Your task to perform on an android device: check google app version Image 0: 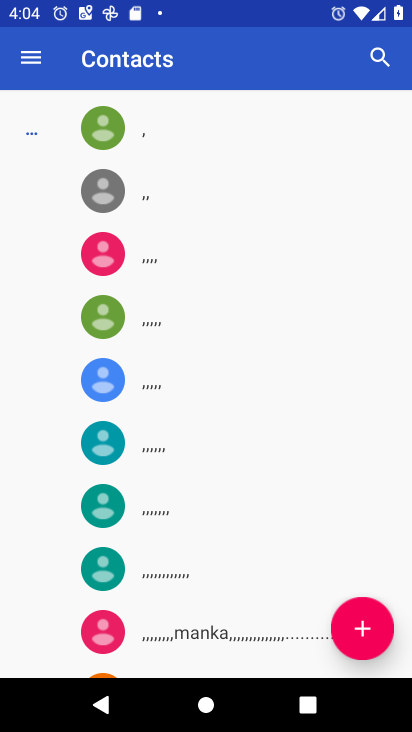
Step 0: press home button
Your task to perform on an android device: check google app version Image 1: 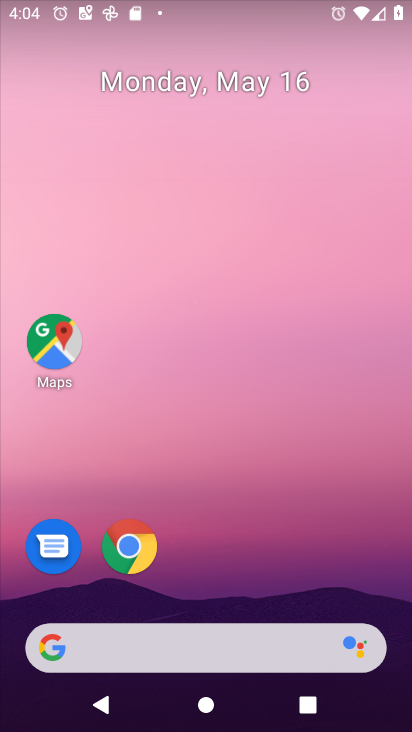
Step 1: drag from (353, 591) to (360, 128)
Your task to perform on an android device: check google app version Image 2: 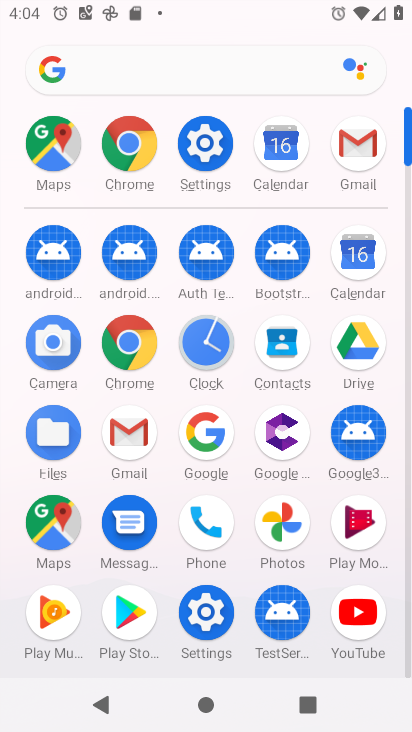
Step 2: click (214, 448)
Your task to perform on an android device: check google app version Image 3: 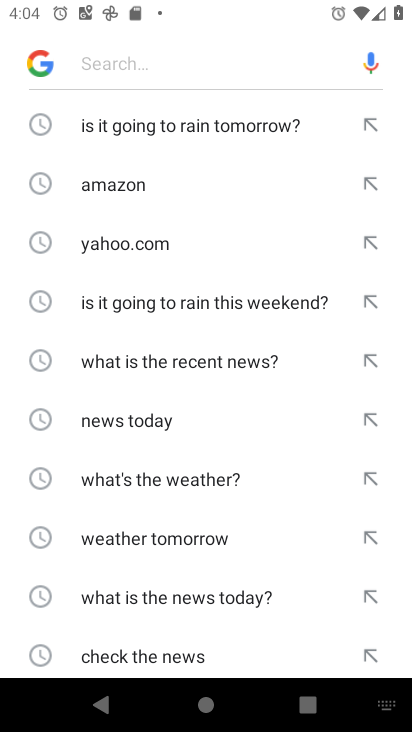
Step 3: drag from (306, 185) to (303, 442)
Your task to perform on an android device: check google app version Image 4: 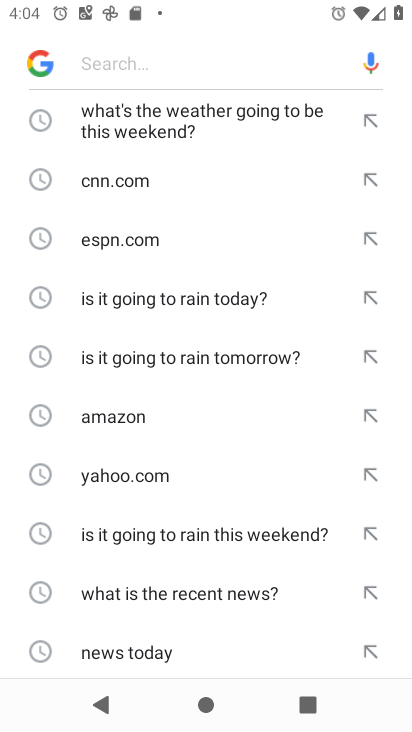
Step 4: drag from (318, 173) to (307, 563)
Your task to perform on an android device: check google app version Image 5: 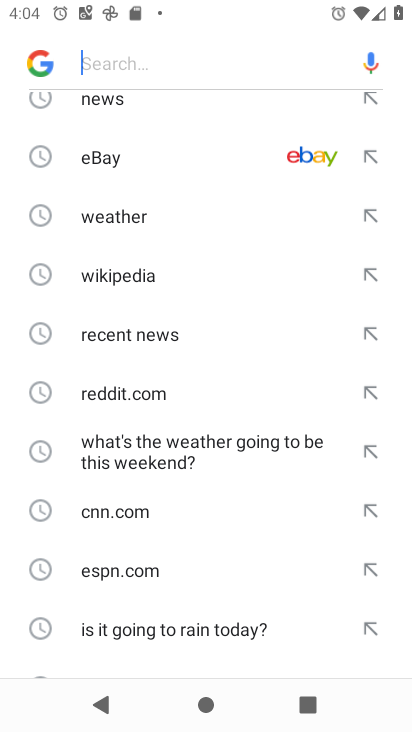
Step 5: drag from (272, 192) to (255, 544)
Your task to perform on an android device: check google app version Image 6: 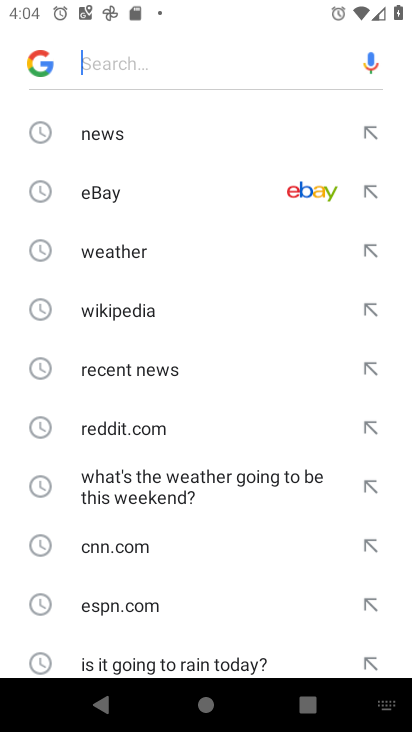
Step 6: press back button
Your task to perform on an android device: check google app version Image 7: 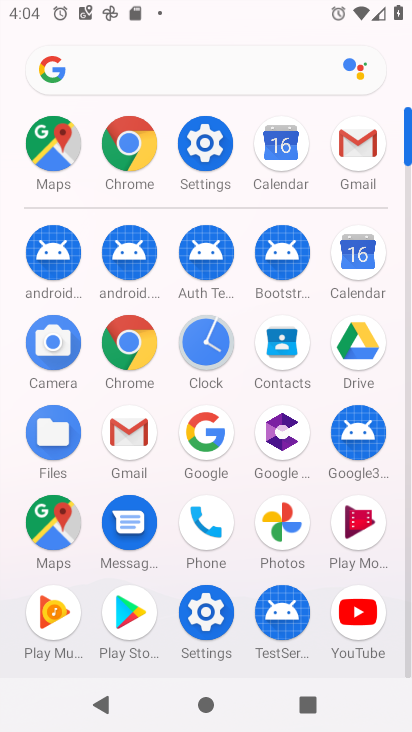
Step 7: click (201, 443)
Your task to perform on an android device: check google app version Image 8: 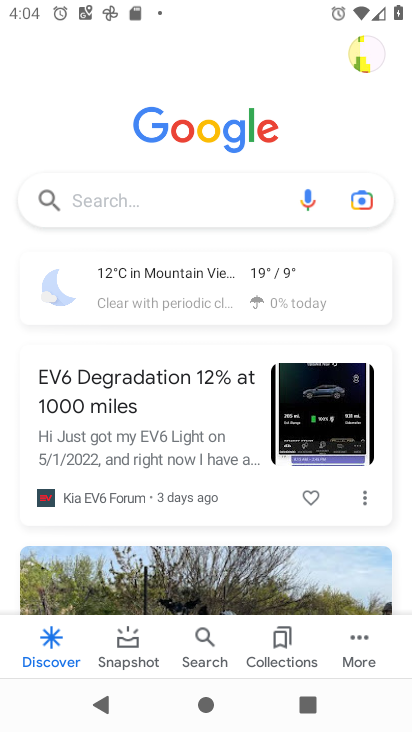
Step 8: click (366, 646)
Your task to perform on an android device: check google app version Image 9: 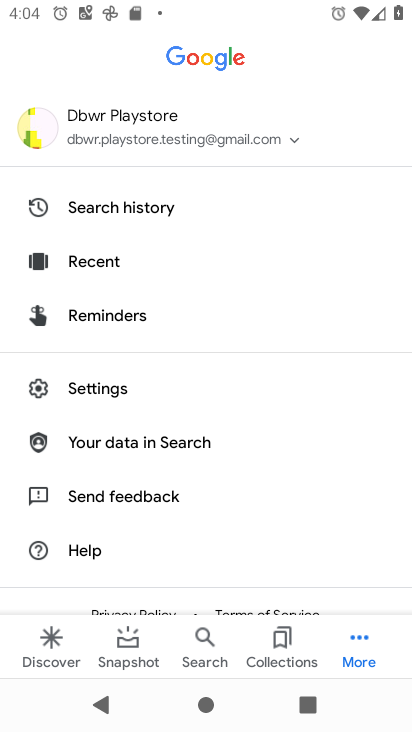
Step 9: drag from (248, 541) to (277, 341)
Your task to perform on an android device: check google app version Image 10: 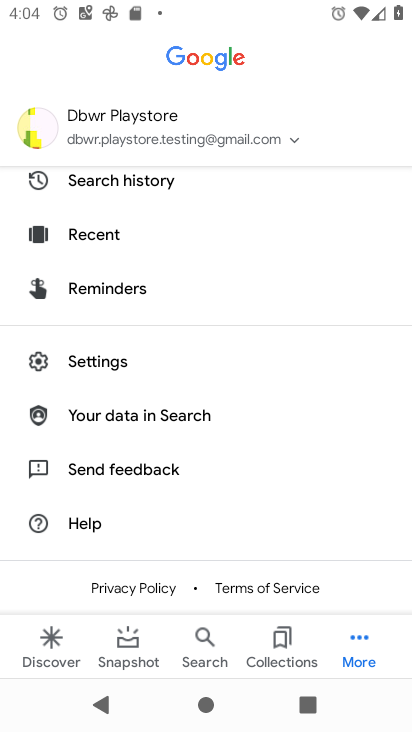
Step 10: drag from (254, 515) to (254, 315)
Your task to perform on an android device: check google app version Image 11: 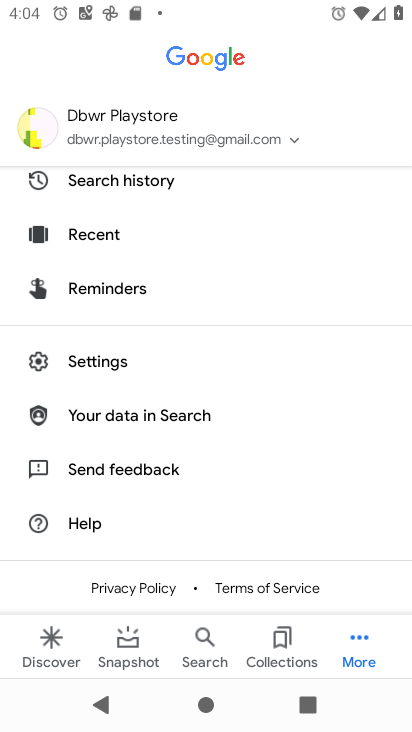
Step 11: click (209, 370)
Your task to perform on an android device: check google app version Image 12: 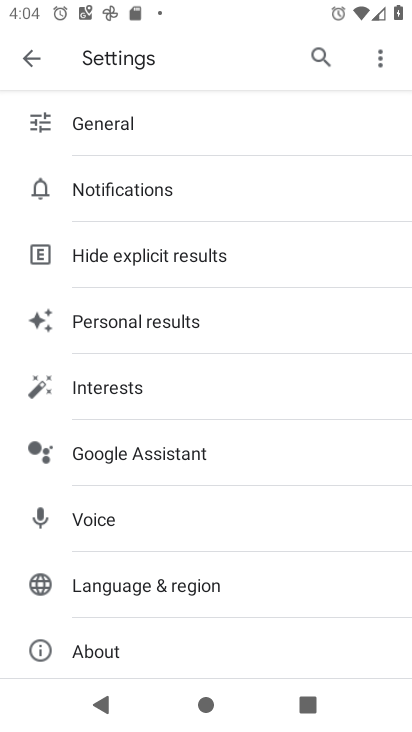
Step 12: drag from (294, 604) to (303, 438)
Your task to perform on an android device: check google app version Image 13: 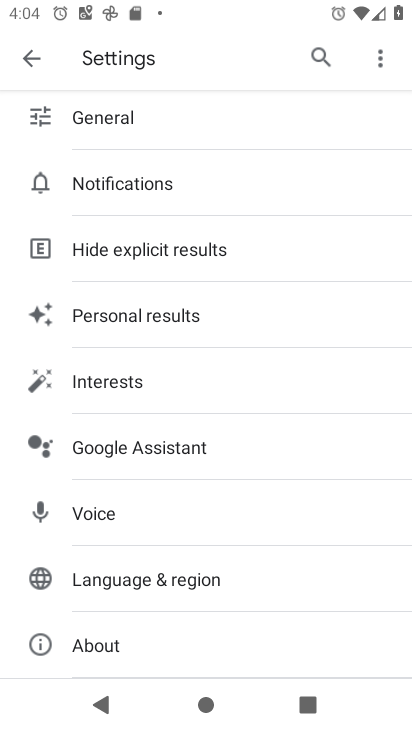
Step 13: click (254, 646)
Your task to perform on an android device: check google app version Image 14: 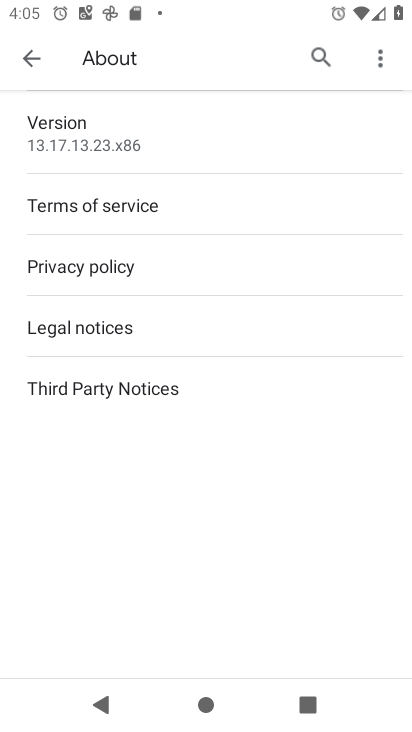
Step 14: task complete